Your task to perform on an android device: change notification settings in the gmail app Image 0: 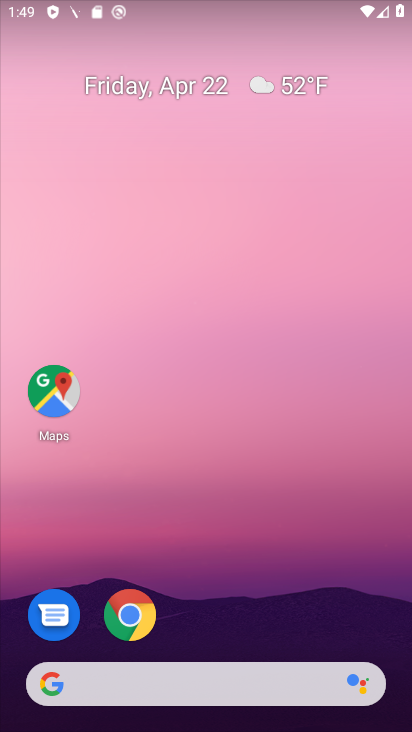
Step 0: drag from (261, 721) to (149, 282)
Your task to perform on an android device: change notification settings in the gmail app Image 1: 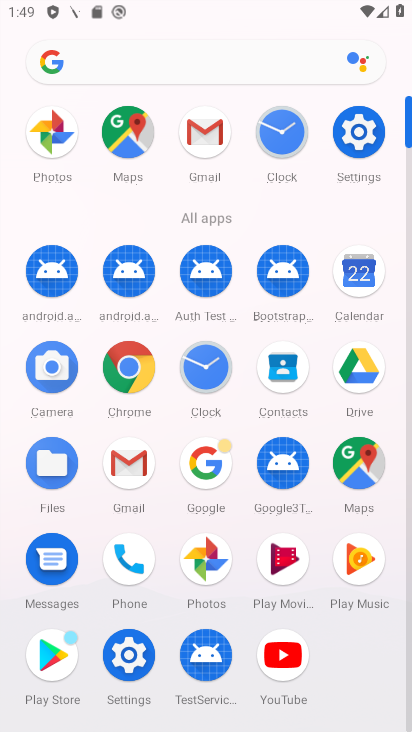
Step 1: click (191, 155)
Your task to perform on an android device: change notification settings in the gmail app Image 2: 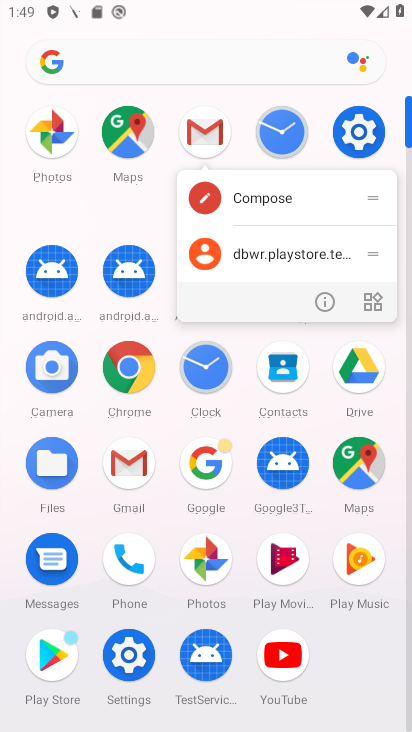
Step 2: click (328, 293)
Your task to perform on an android device: change notification settings in the gmail app Image 3: 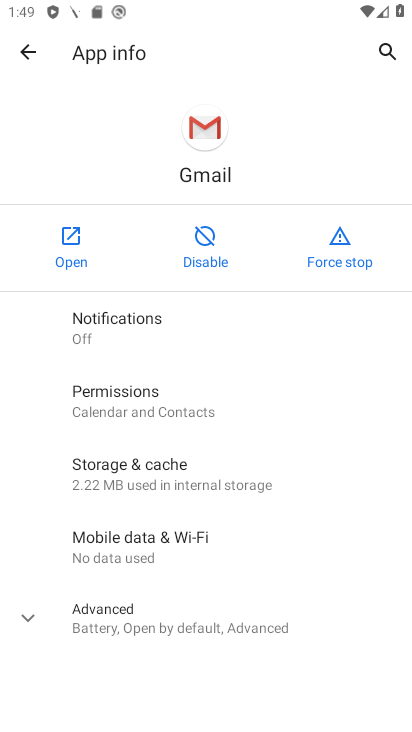
Step 3: click (298, 312)
Your task to perform on an android device: change notification settings in the gmail app Image 4: 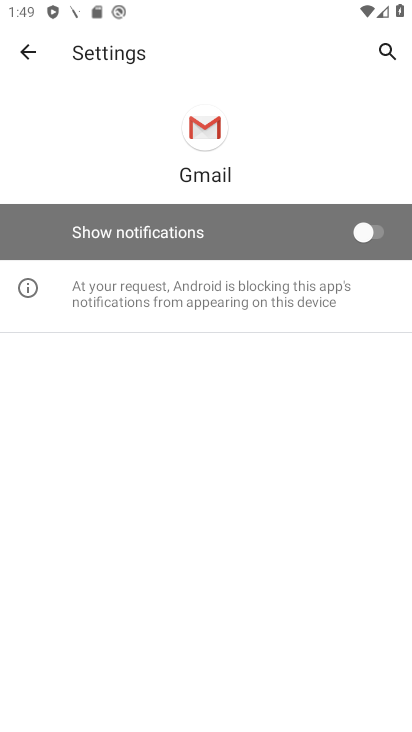
Step 4: click (376, 228)
Your task to perform on an android device: change notification settings in the gmail app Image 5: 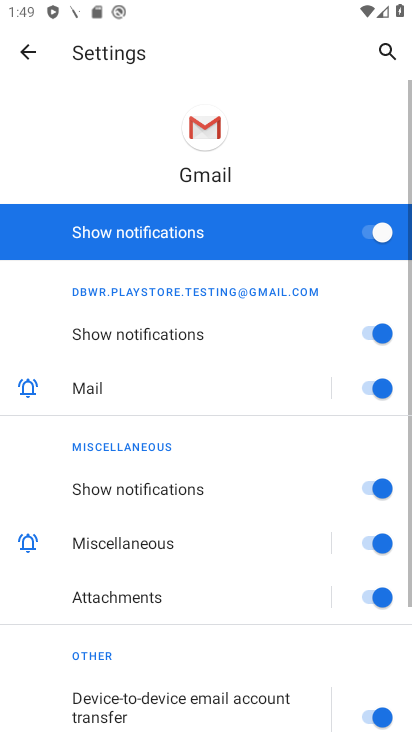
Step 5: task complete